Your task to perform on an android device: open device folders in google photos Image 0: 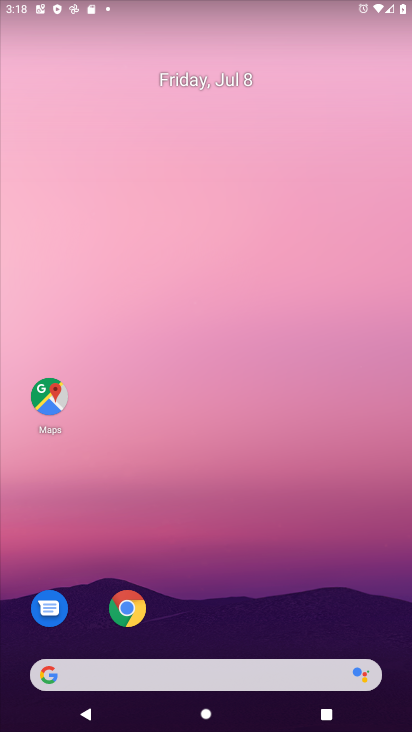
Step 0: drag from (249, 688) to (316, 10)
Your task to perform on an android device: open device folders in google photos Image 1: 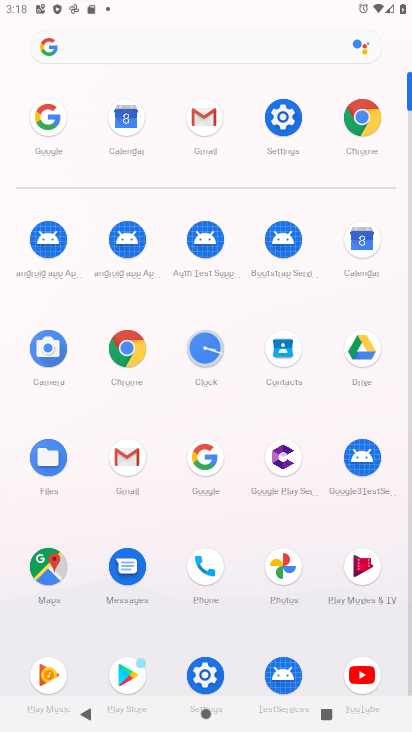
Step 1: click (275, 568)
Your task to perform on an android device: open device folders in google photos Image 2: 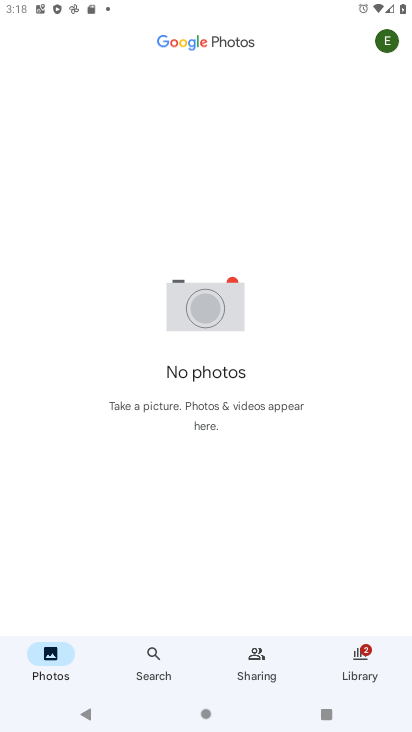
Step 2: click (372, 657)
Your task to perform on an android device: open device folders in google photos Image 3: 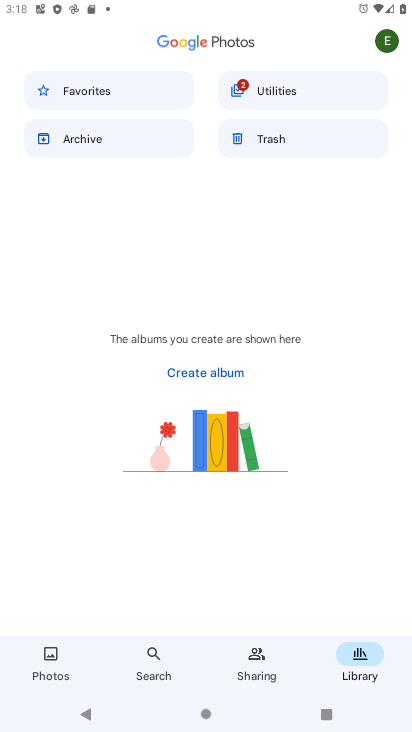
Step 3: click (380, 40)
Your task to perform on an android device: open device folders in google photos Image 4: 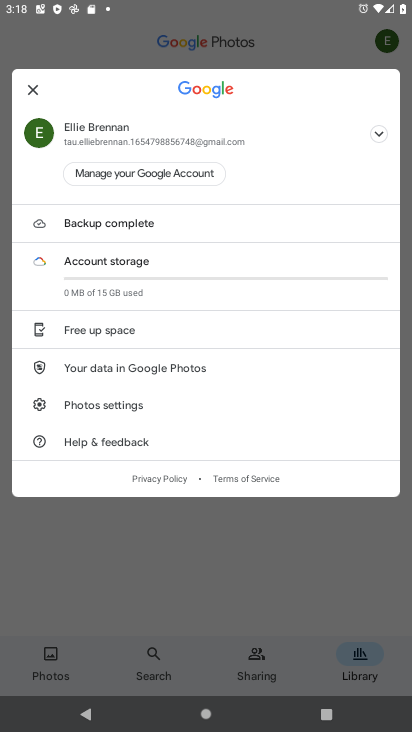
Step 4: task complete